Your task to perform on an android device: Go to settings Image 0: 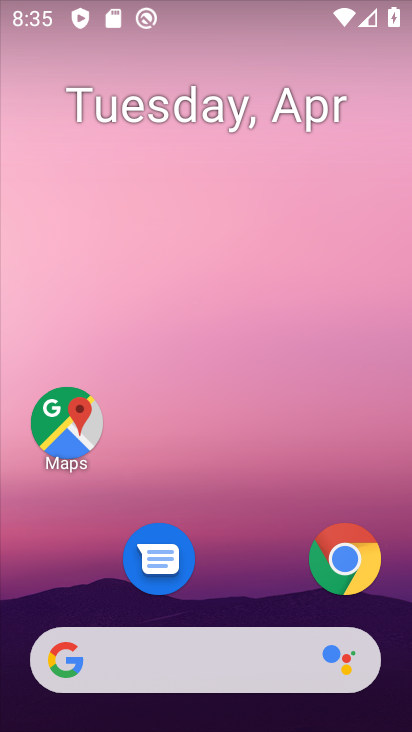
Step 0: click (252, 287)
Your task to perform on an android device: Go to settings Image 1: 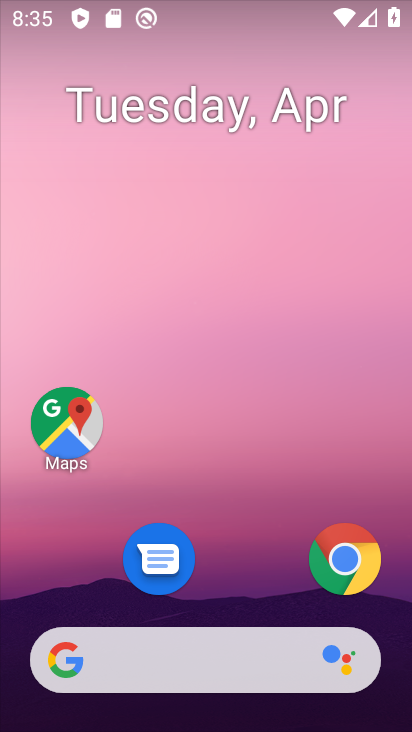
Step 1: drag from (265, 697) to (250, 49)
Your task to perform on an android device: Go to settings Image 2: 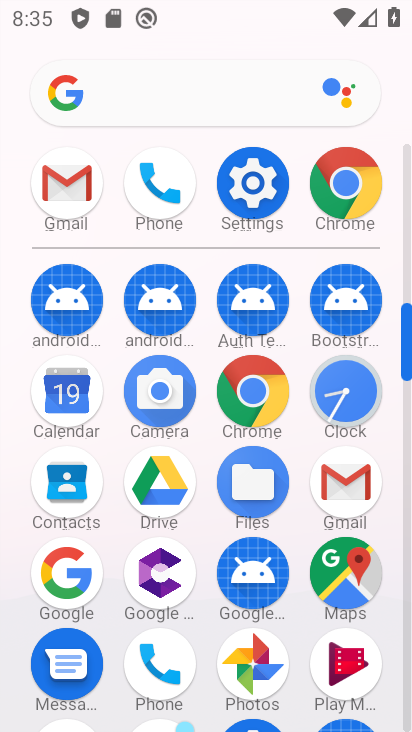
Step 2: click (258, 176)
Your task to perform on an android device: Go to settings Image 3: 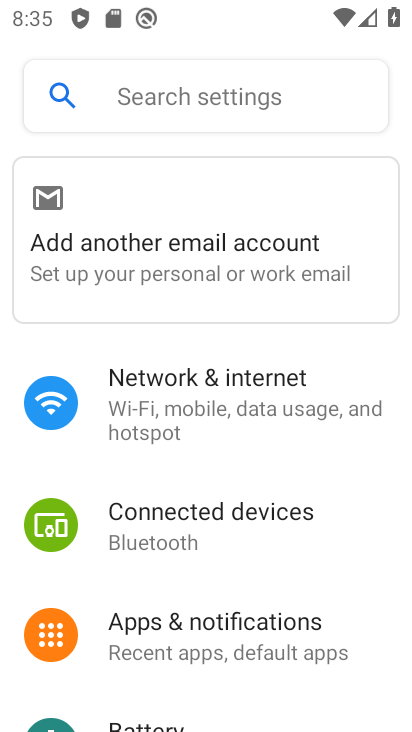
Step 3: task complete